Your task to perform on an android device: open app "Cash App" (install if not already installed) Image 0: 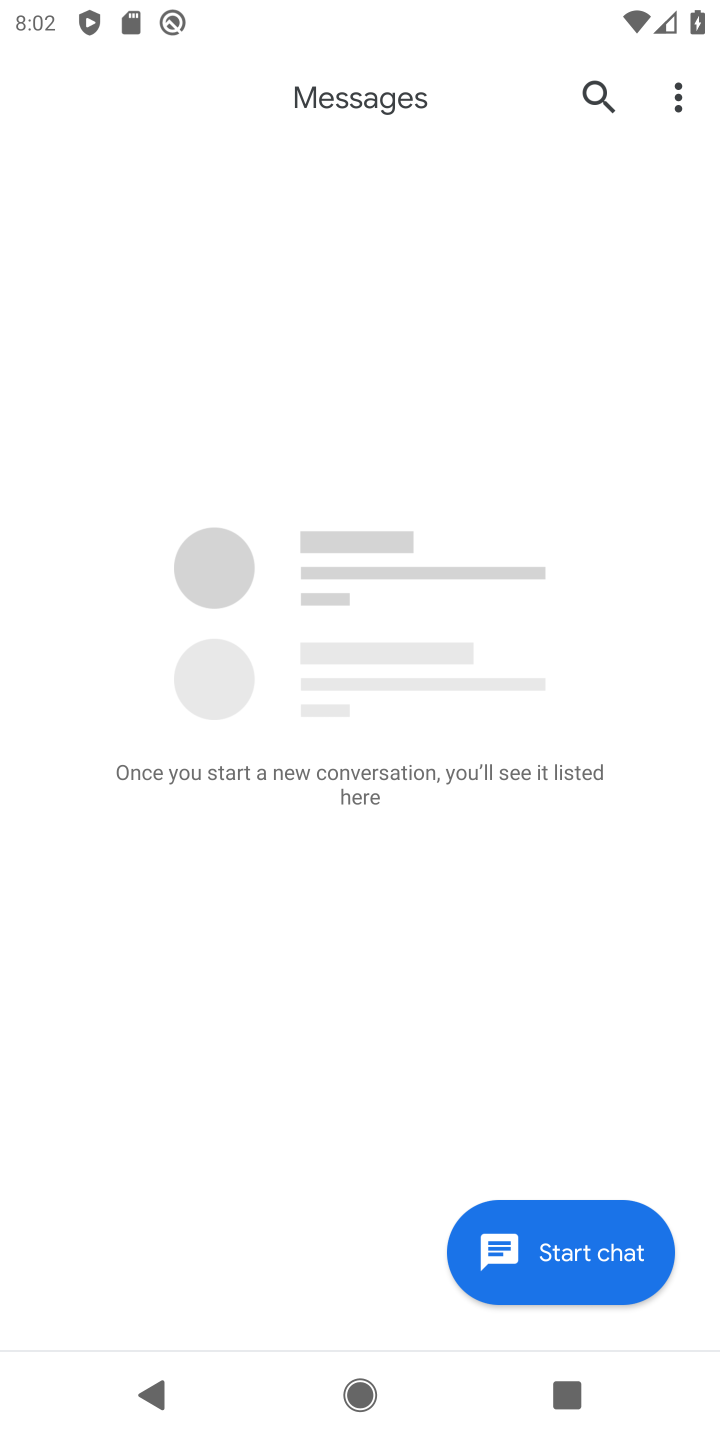
Step 0: press home button
Your task to perform on an android device: open app "Cash App" (install if not already installed) Image 1: 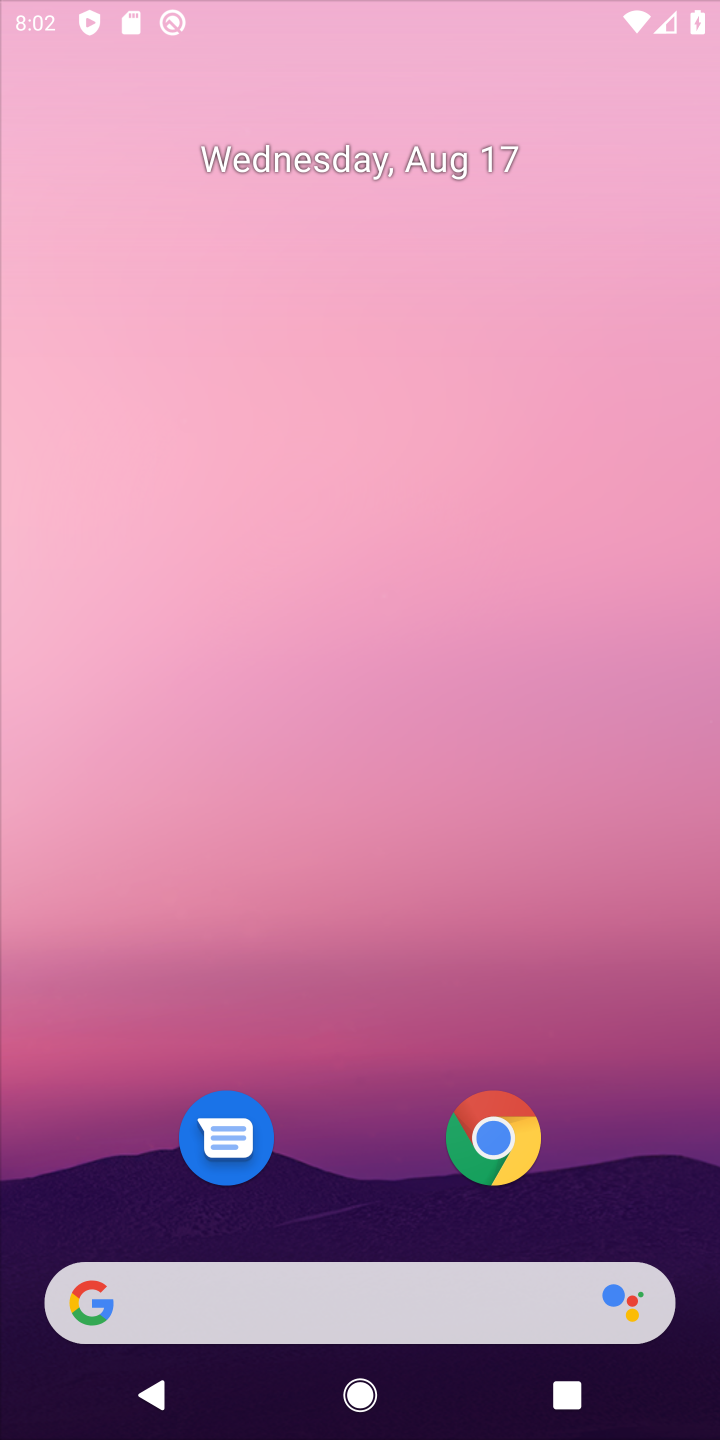
Step 1: drag from (262, 853) to (274, 440)
Your task to perform on an android device: open app "Cash App" (install if not already installed) Image 2: 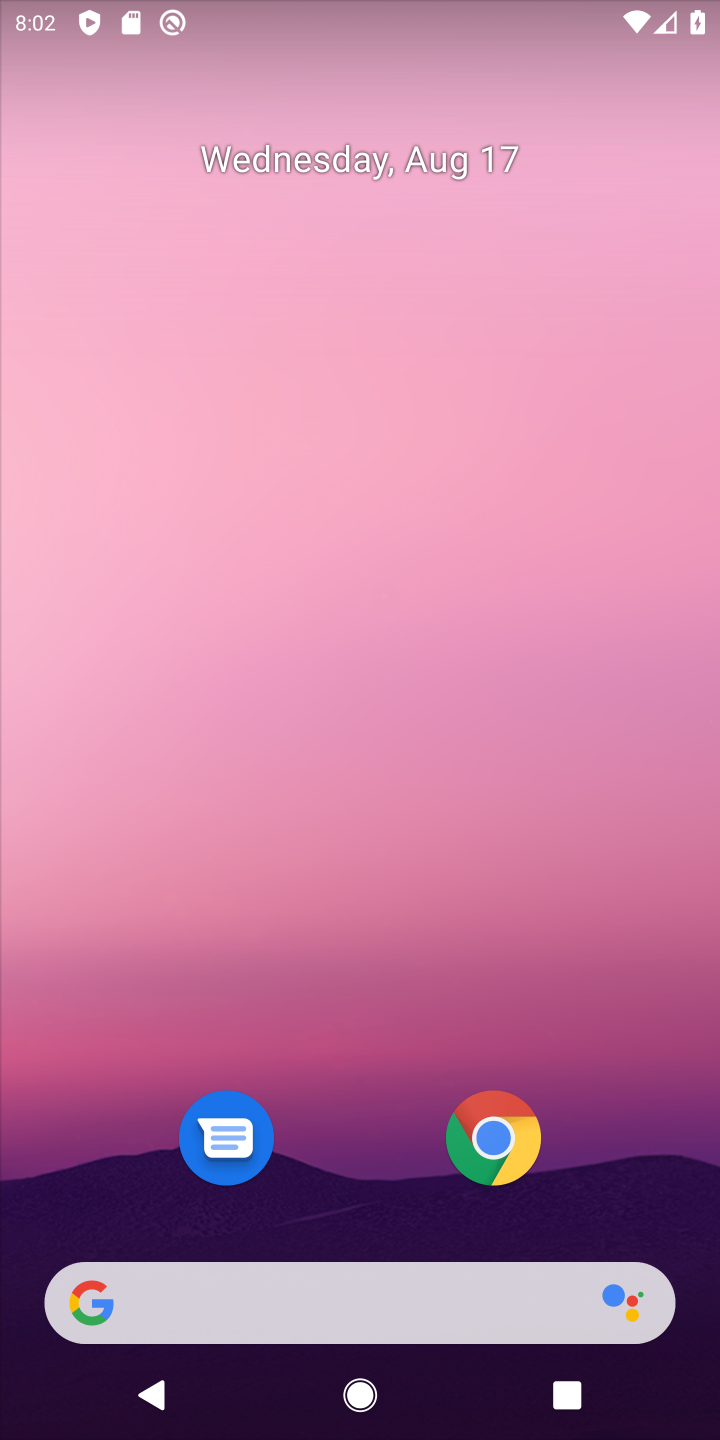
Step 2: drag from (284, 1057) to (269, 290)
Your task to perform on an android device: open app "Cash App" (install if not already installed) Image 3: 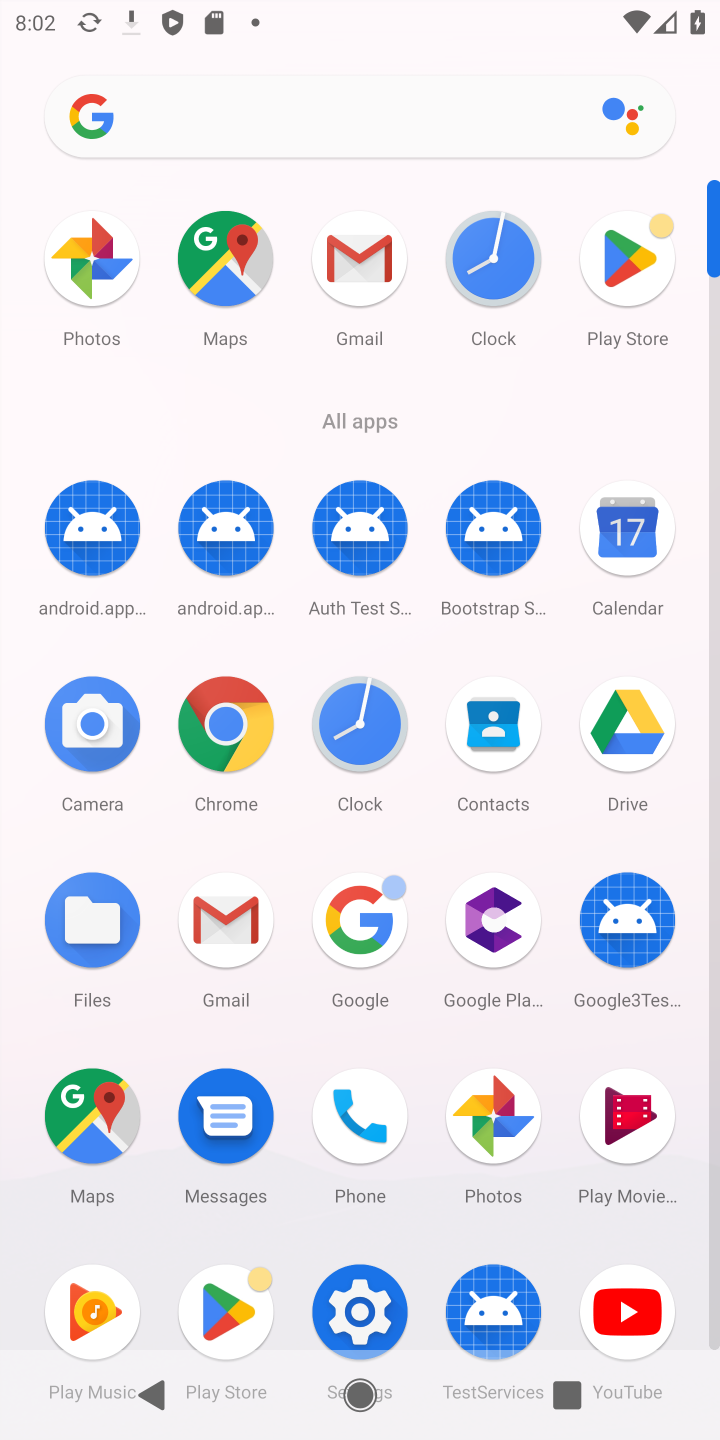
Step 3: click (636, 245)
Your task to perform on an android device: open app "Cash App" (install if not already installed) Image 4: 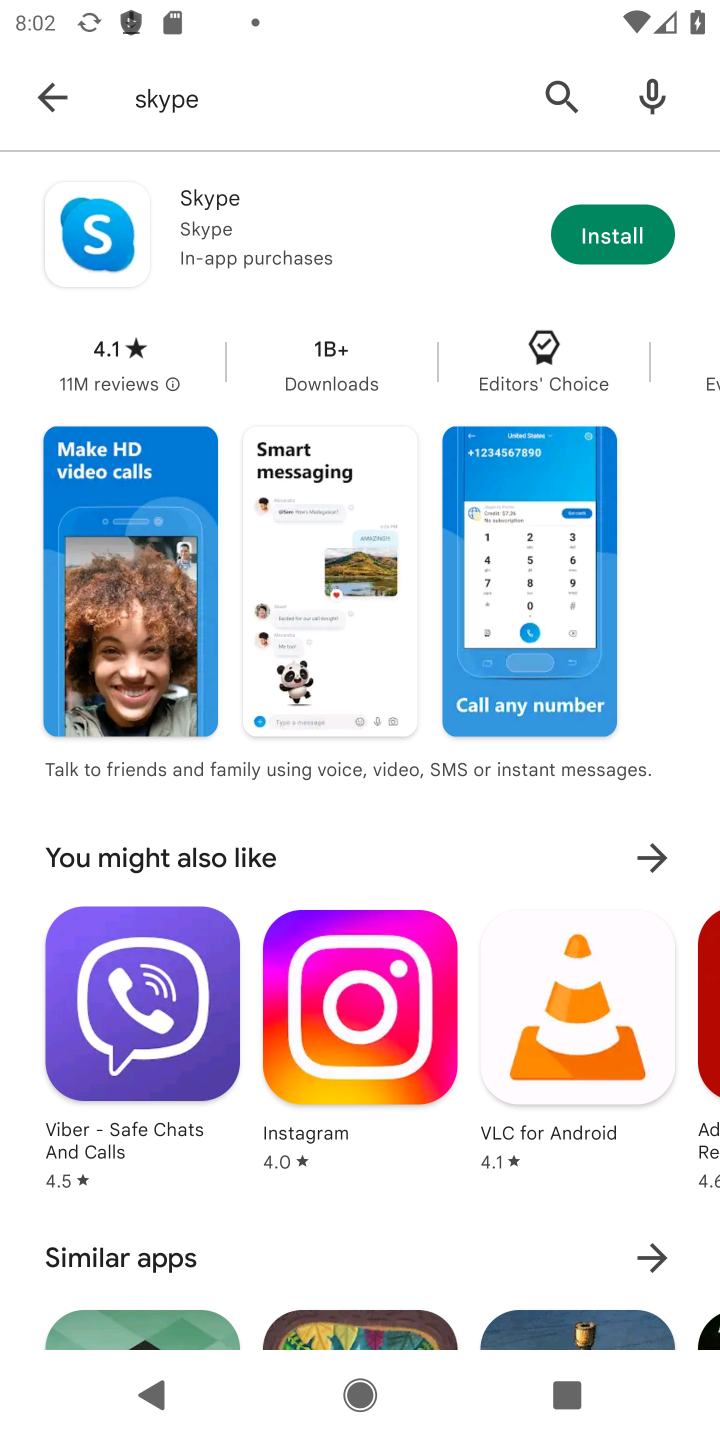
Step 4: click (52, 82)
Your task to perform on an android device: open app "Cash App" (install if not already installed) Image 5: 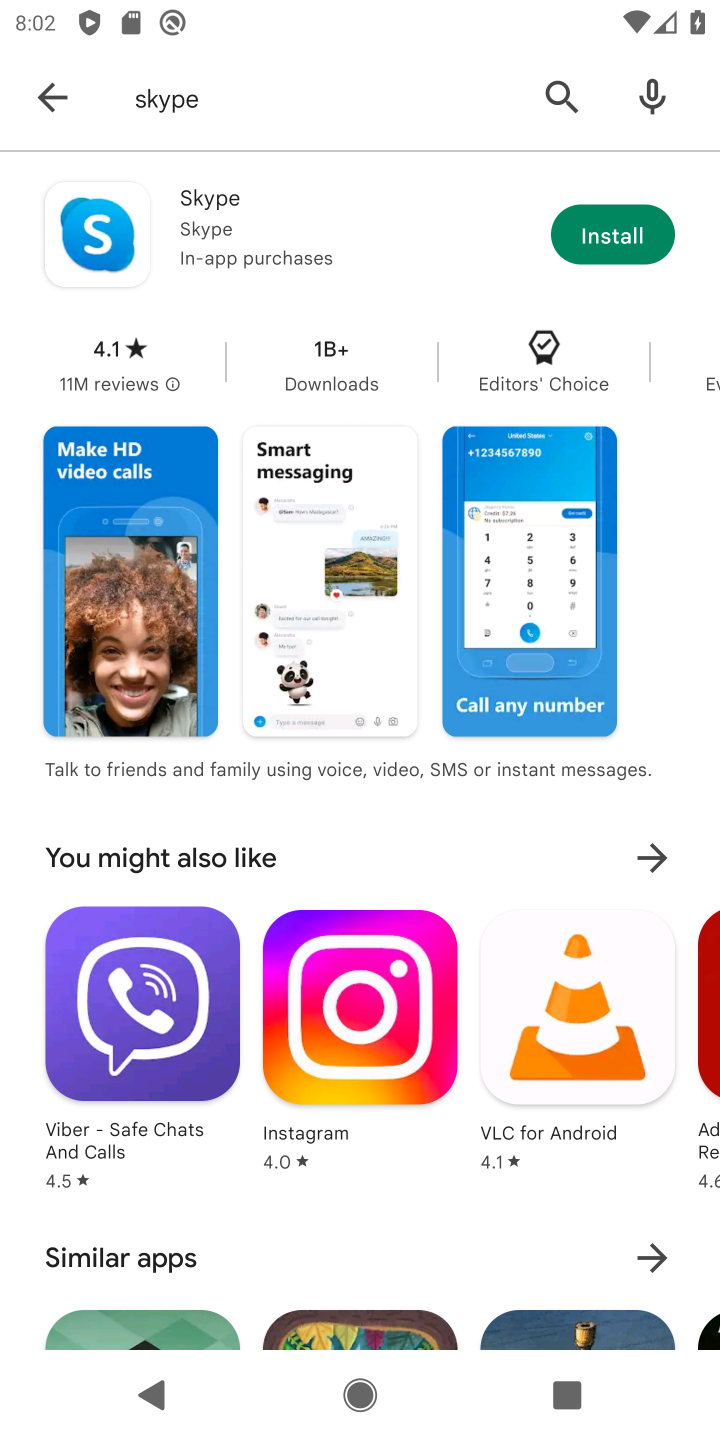
Step 5: click (23, 96)
Your task to perform on an android device: open app "Cash App" (install if not already installed) Image 6: 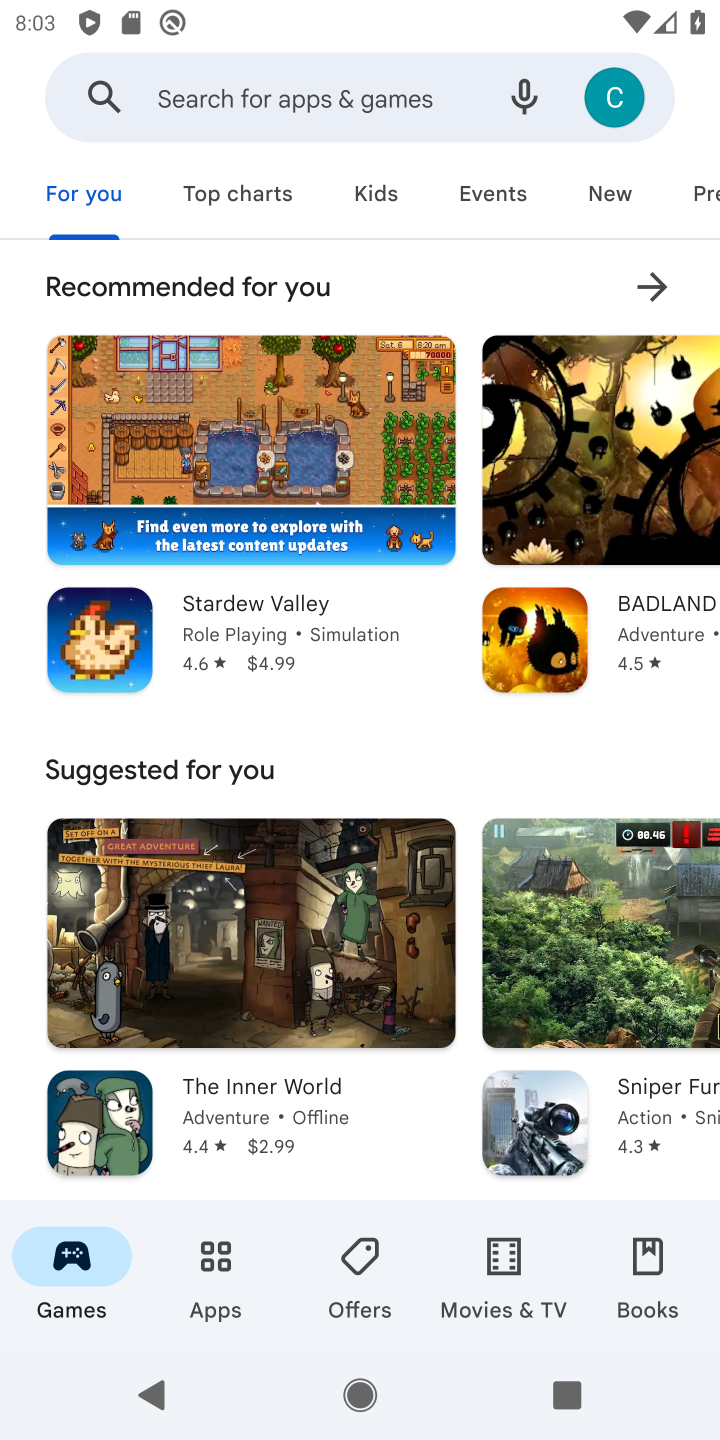
Step 6: click (212, 82)
Your task to perform on an android device: open app "Cash App" (install if not already installed) Image 7: 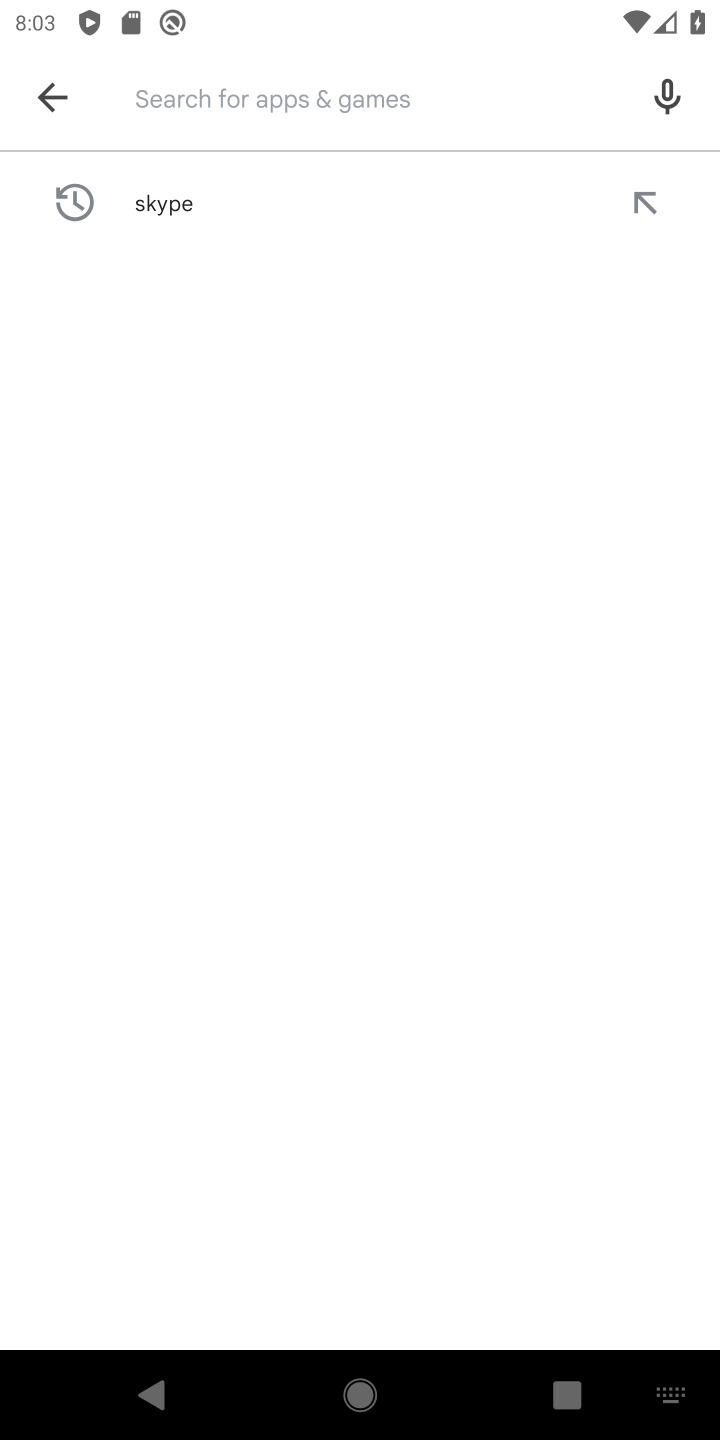
Step 7: click (356, 96)
Your task to perform on an android device: open app "Cash App" (install if not already installed) Image 8: 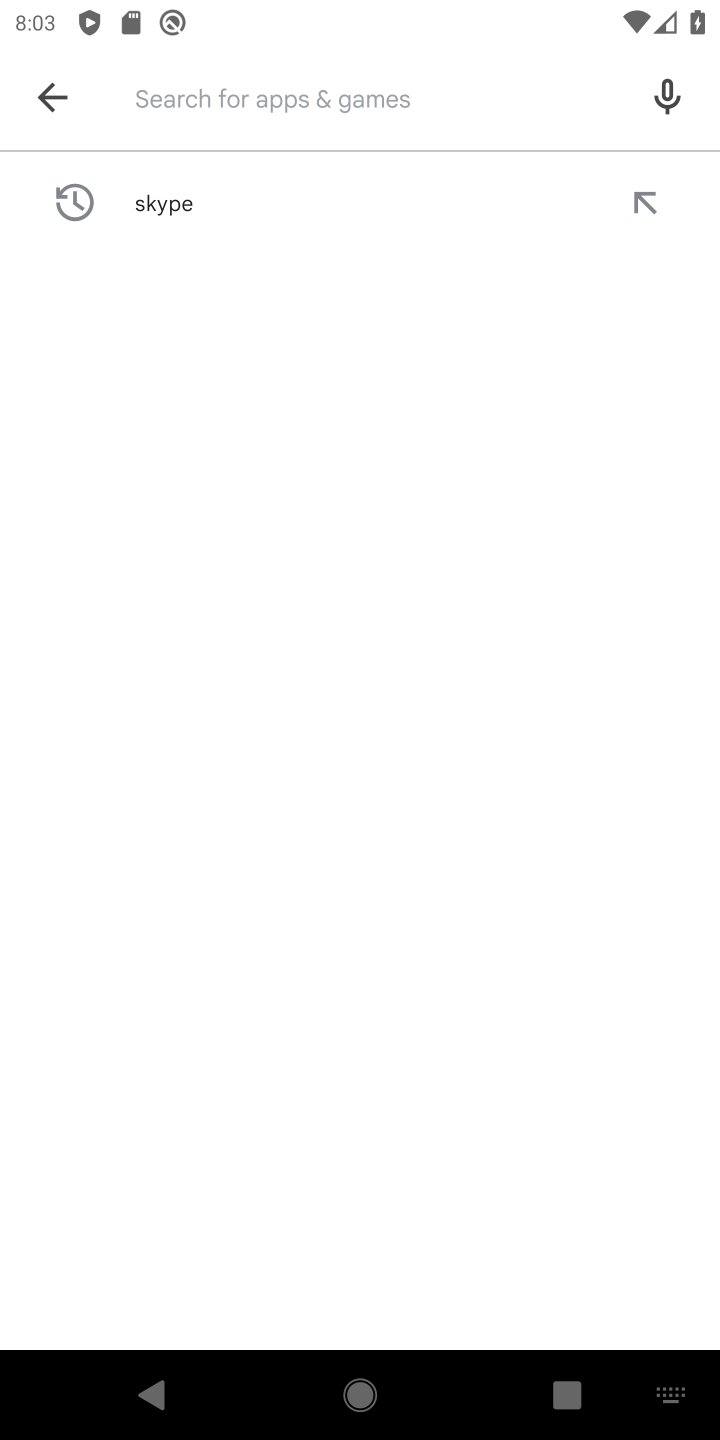
Step 8: type "Cash App "
Your task to perform on an android device: open app "Cash App" (install if not already installed) Image 9: 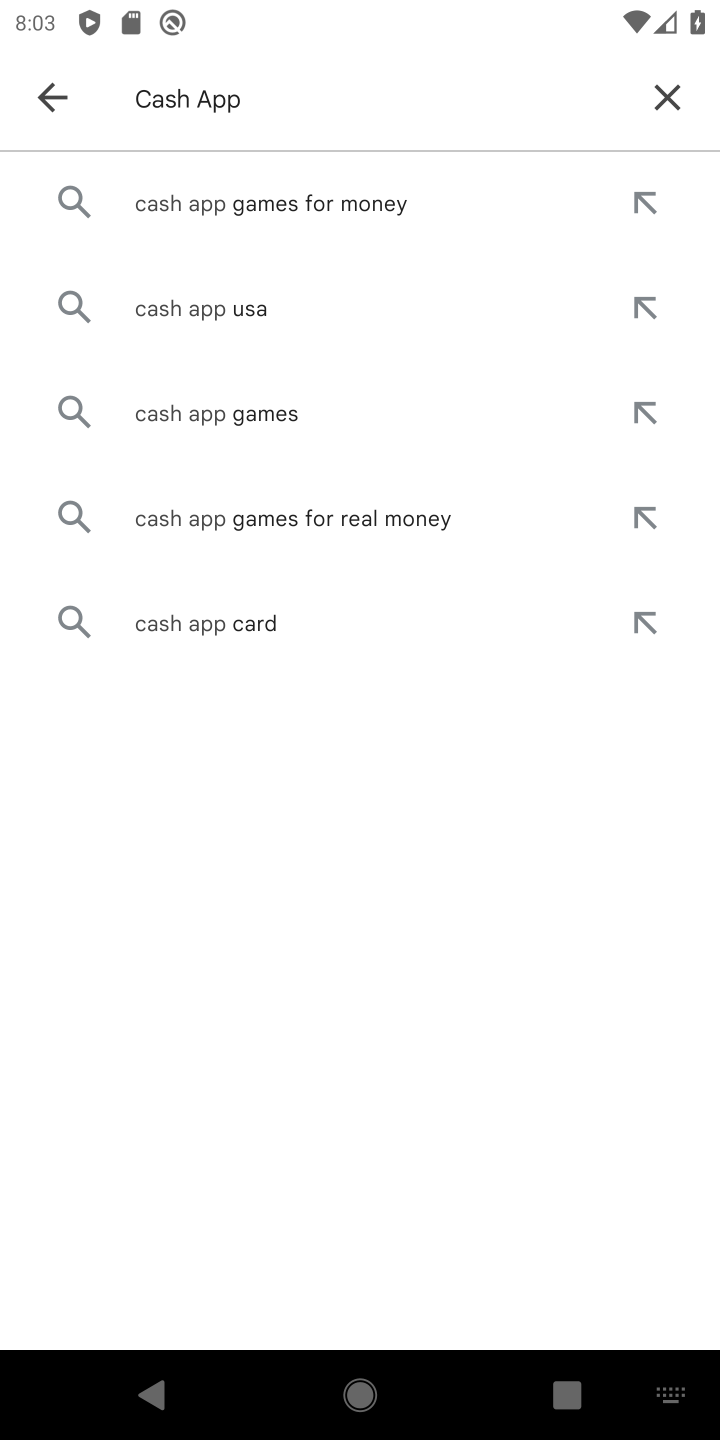
Step 9: click (201, 329)
Your task to perform on an android device: open app "Cash App" (install if not already installed) Image 10: 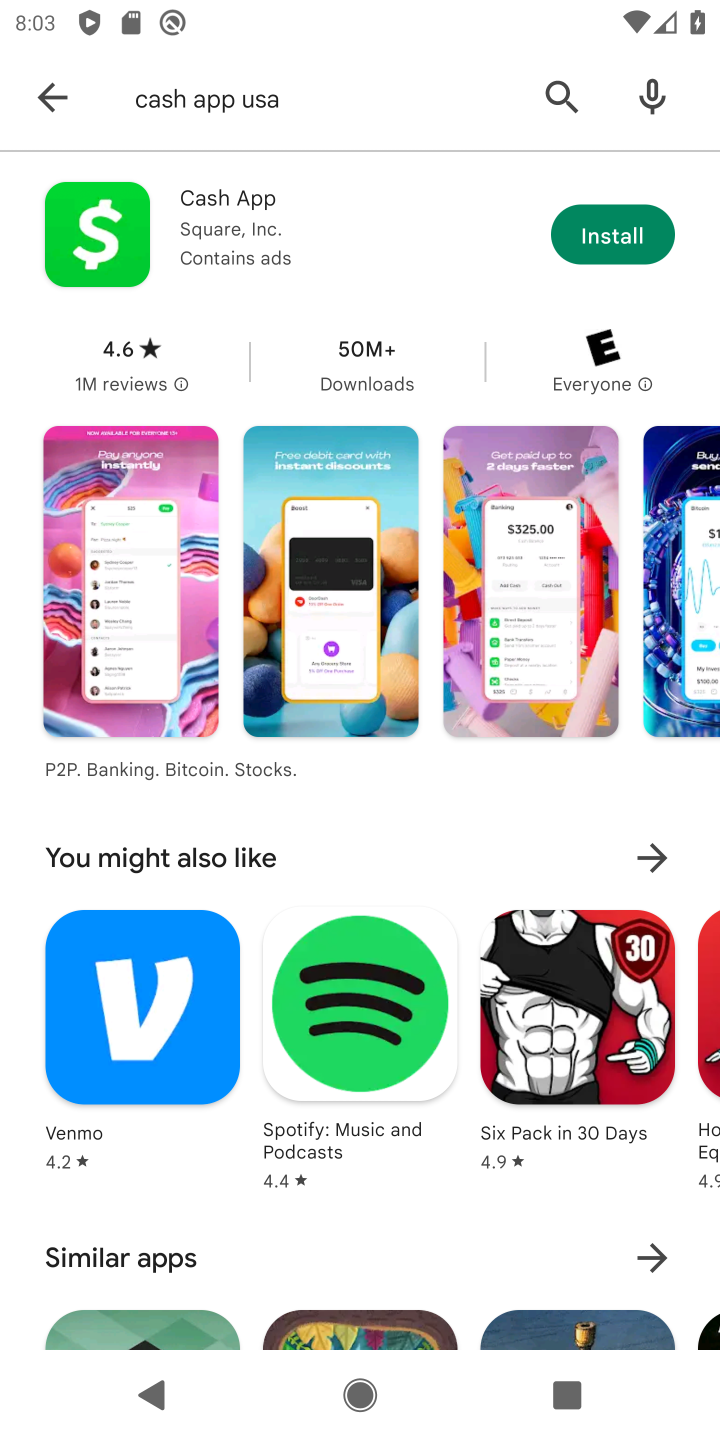
Step 10: click (572, 234)
Your task to perform on an android device: open app "Cash App" (install if not already installed) Image 11: 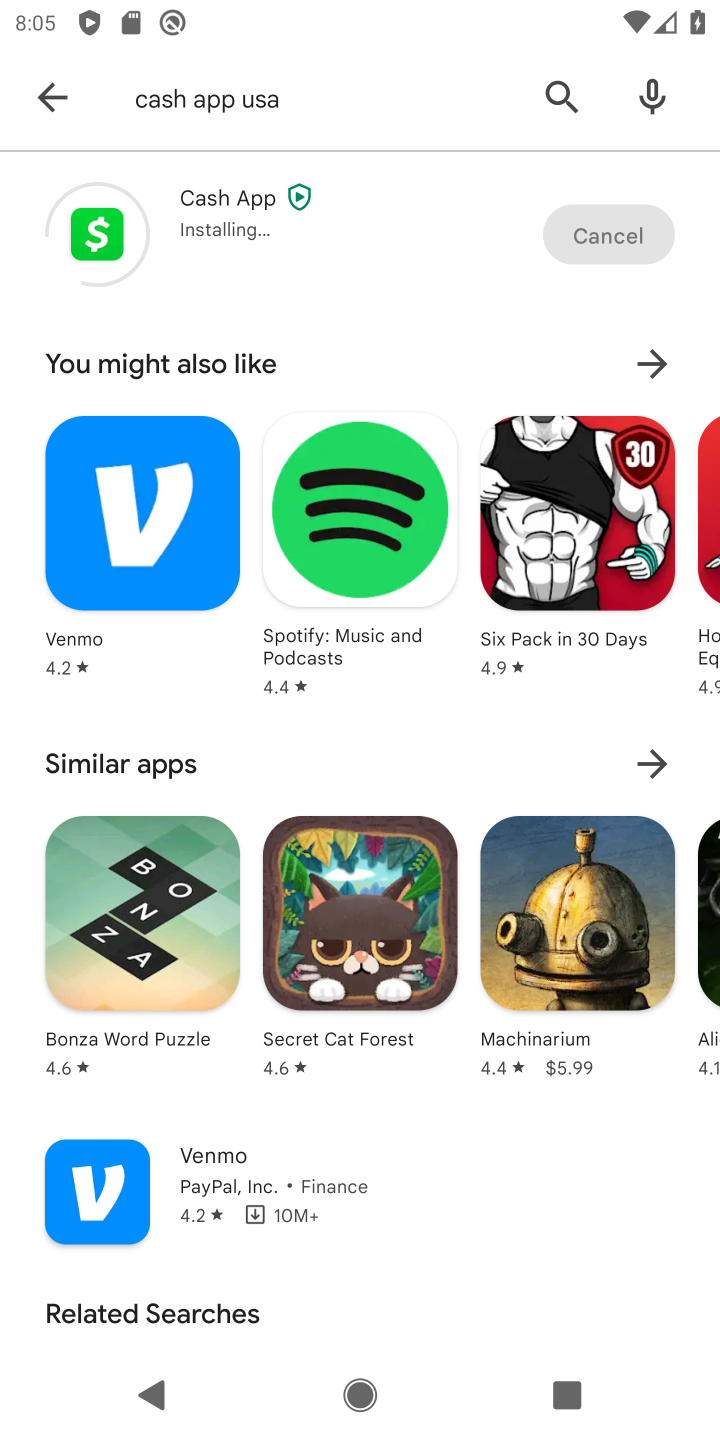
Step 11: task complete